Your task to perform on an android device: change the clock display to show seconds Image 0: 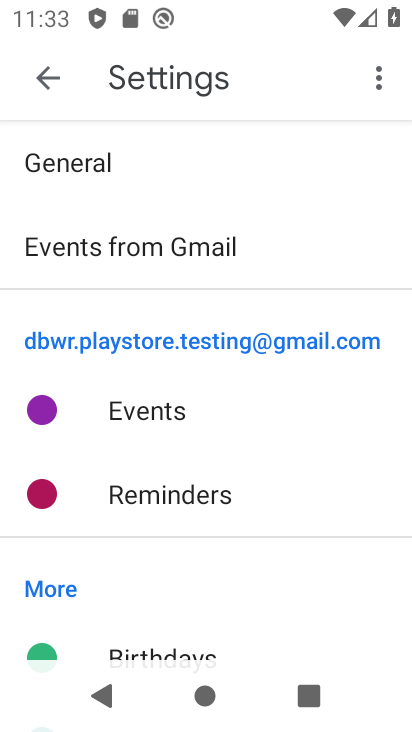
Step 0: press home button
Your task to perform on an android device: change the clock display to show seconds Image 1: 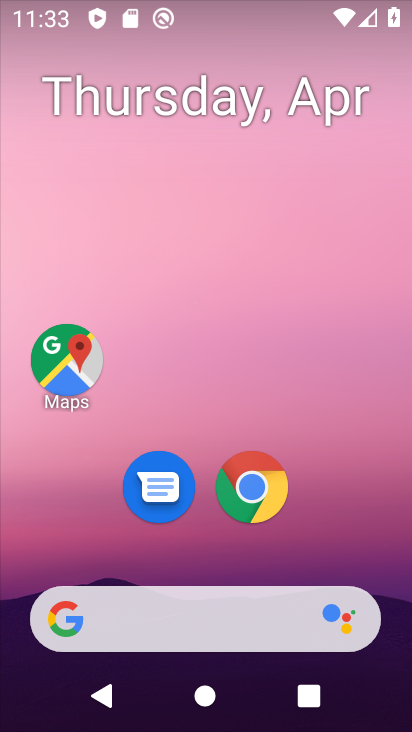
Step 1: drag from (319, 549) to (317, 211)
Your task to perform on an android device: change the clock display to show seconds Image 2: 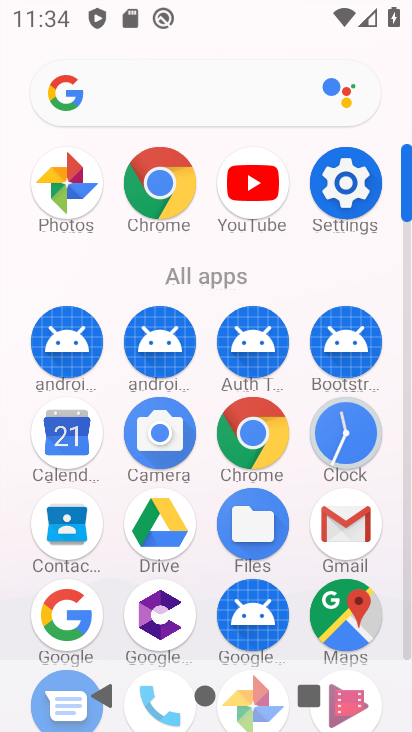
Step 2: click (336, 430)
Your task to perform on an android device: change the clock display to show seconds Image 3: 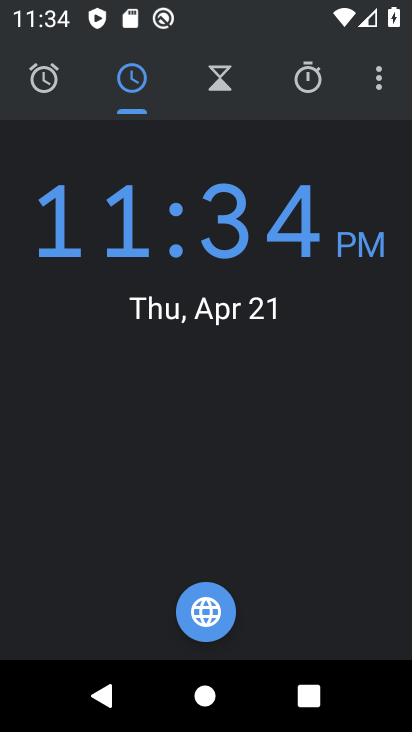
Step 3: click (374, 83)
Your task to perform on an android device: change the clock display to show seconds Image 4: 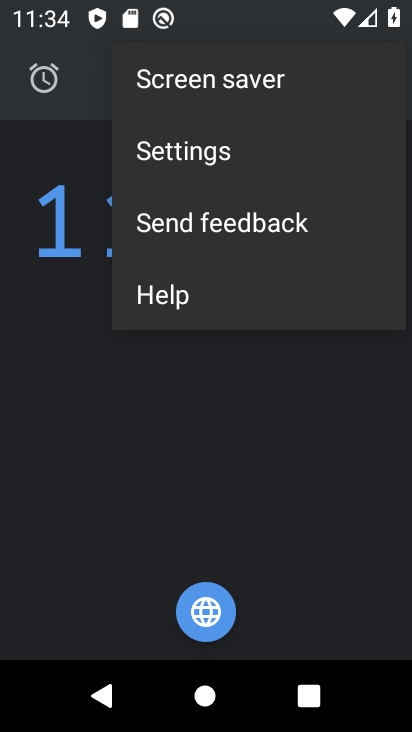
Step 4: drag from (241, 125) to (228, 159)
Your task to perform on an android device: change the clock display to show seconds Image 5: 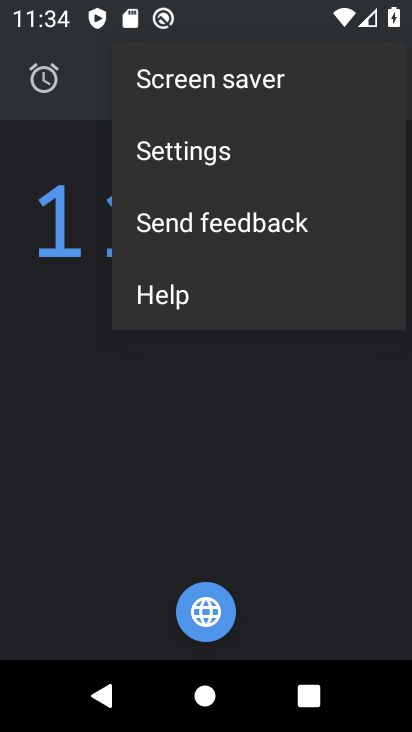
Step 5: click (179, 158)
Your task to perform on an android device: change the clock display to show seconds Image 6: 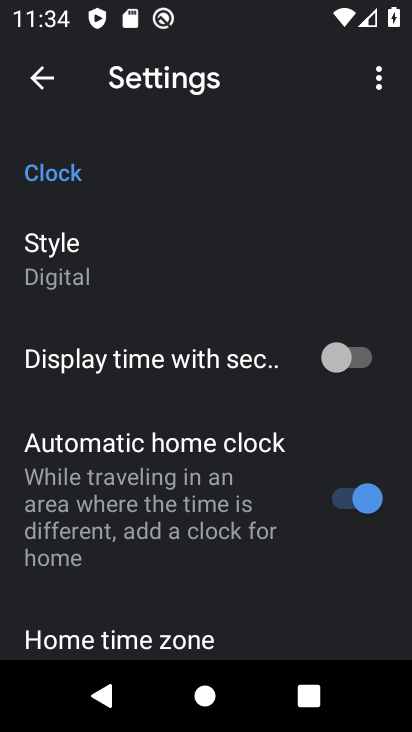
Step 6: click (334, 348)
Your task to perform on an android device: change the clock display to show seconds Image 7: 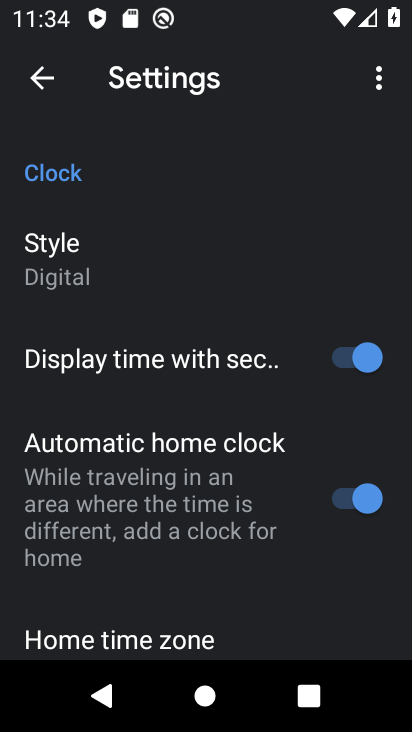
Step 7: task complete